Your task to perform on an android device: allow cookies in the chrome app Image 0: 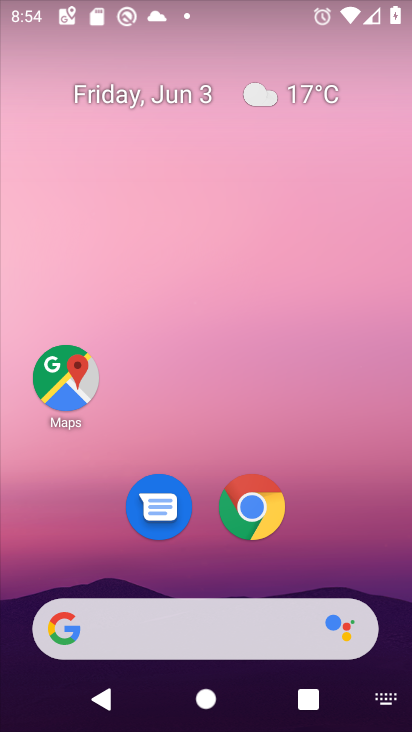
Step 0: click (254, 494)
Your task to perform on an android device: allow cookies in the chrome app Image 1: 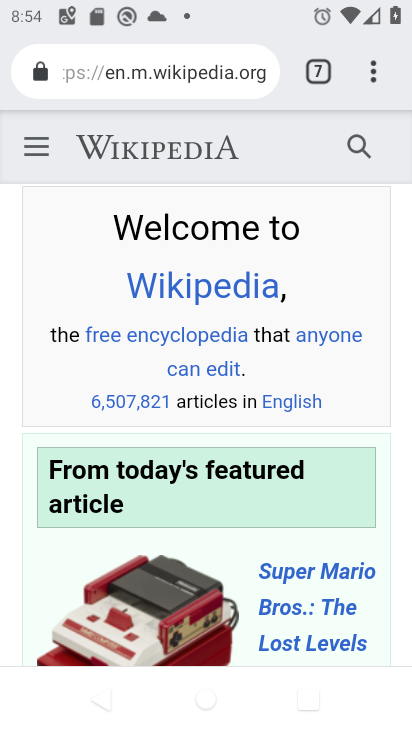
Step 1: click (374, 74)
Your task to perform on an android device: allow cookies in the chrome app Image 2: 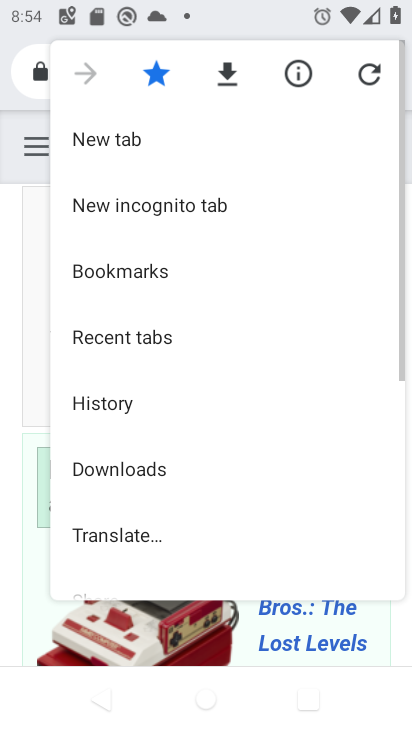
Step 2: drag from (219, 449) to (227, 107)
Your task to perform on an android device: allow cookies in the chrome app Image 3: 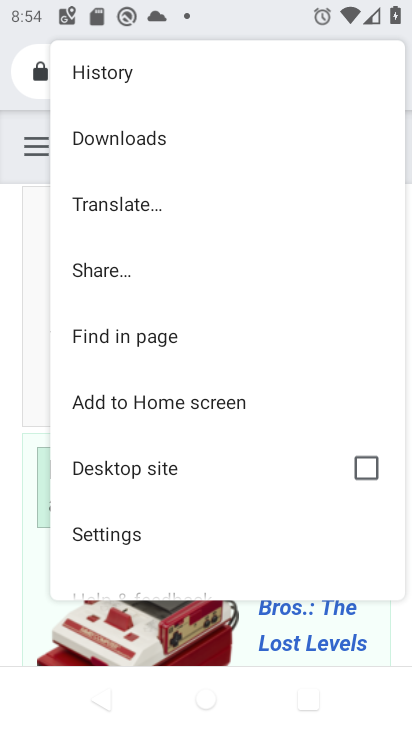
Step 3: click (148, 535)
Your task to perform on an android device: allow cookies in the chrome app Image 4: 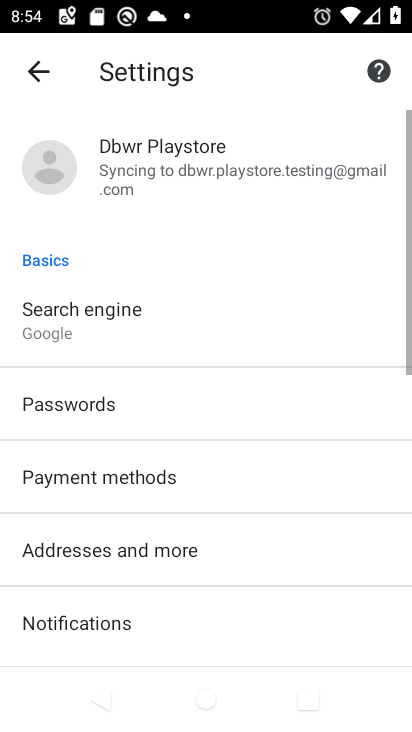
Step 4: drag from (172, 546) to (151, 3)
Your task to perform on an android device: allow cookies in the chrome app Image 5: 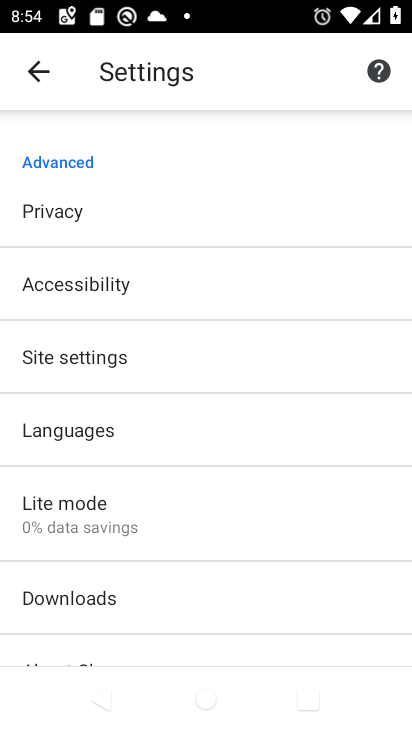
Step 5: click (139, 354)
Your task to perform on an android device: allow cookies in the chrome app Image 6: 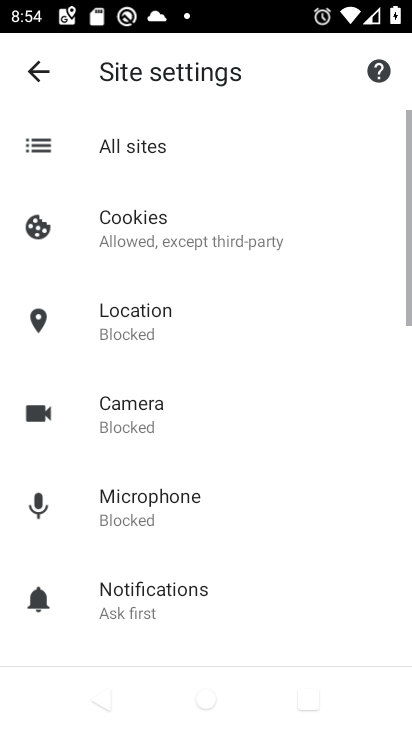
Step 6: click (149, 234)
Your task to perform on an android device: allow cookies in the chrome app Image 7: 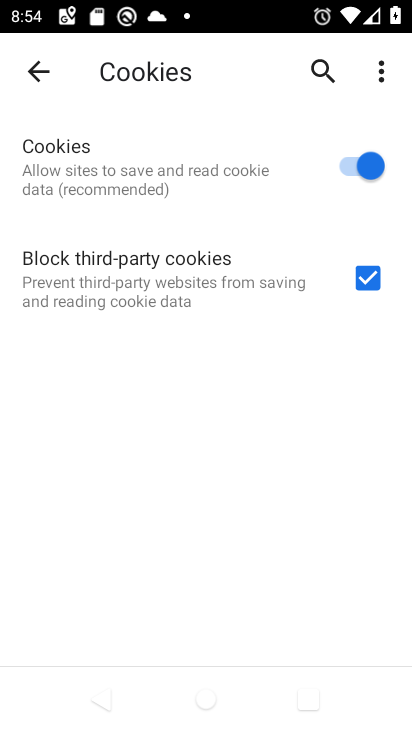
Step 7: task complete